Your task to perform on an android device: Open privacy settings Image 0: 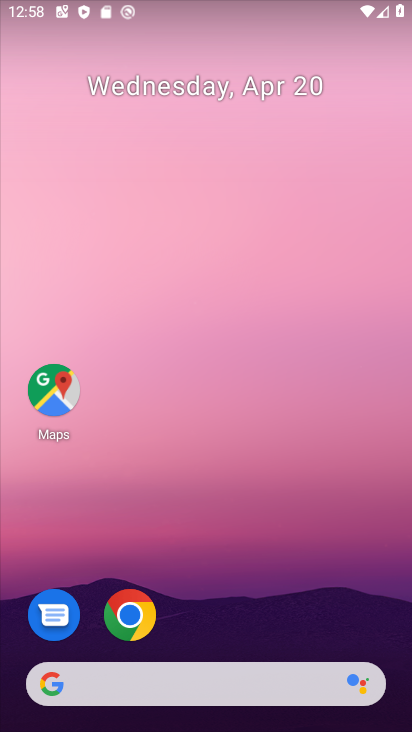
Step 0: click (374, 156)
Your task to perform on an android device: Open privacy settings Image 1: 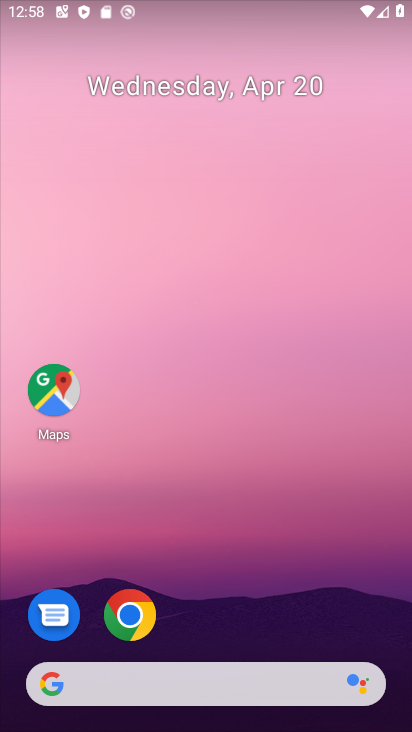
Step 1: drag from (385, 374) to (380, 87)
Your task to perform on an android device: Open privacy settings Image 2: 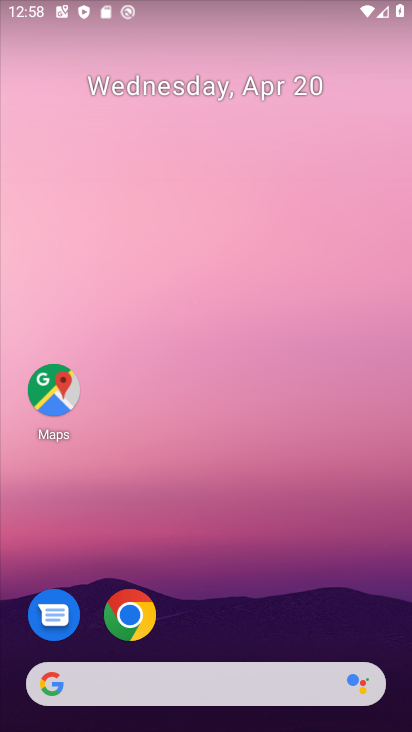
Step 2: drag from (377, 104) to (372, 49)
Your task to perform on an android device: Open privacy settings Image 3: 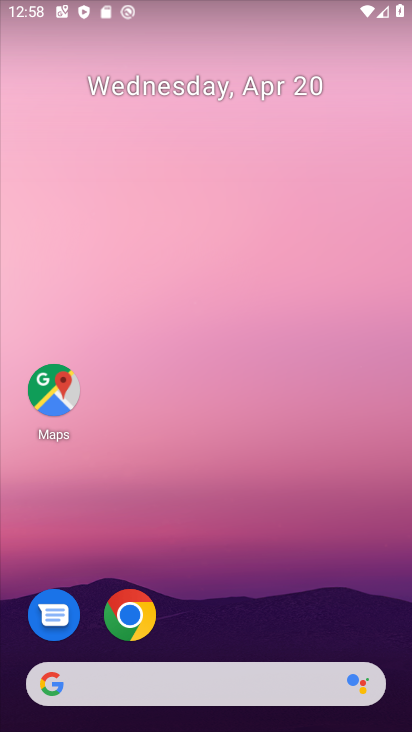
Step 3: drag from (393, 607) to (386, 184)
Your task to perform on an android device: Open privacy settings Image 4: 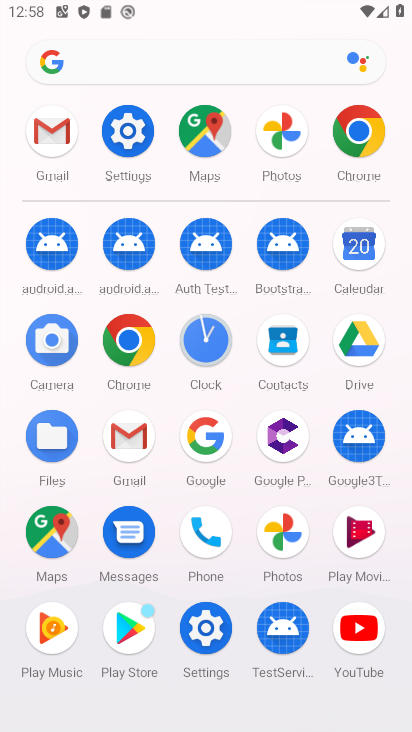
Step 4: click (364, 138)
Your task to perform on an android device: Open privacy settings Image 5: 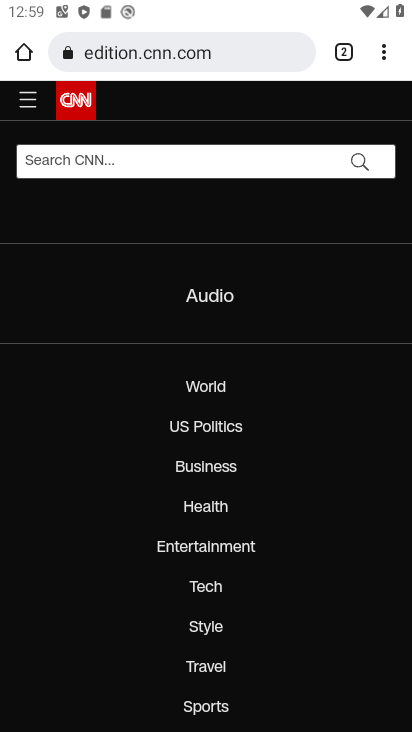
Step 5: click (379, 48)
Your task to perform on an android device: Open privacy settings Image 6: 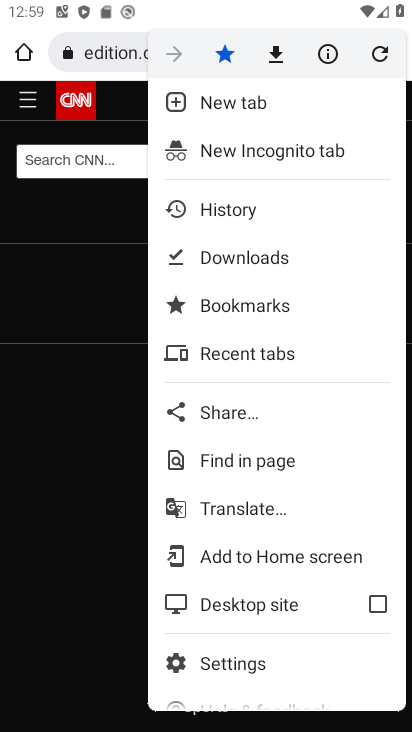
Step 6: click (220, 657)
Your task to perform on an android device: Open privacy settings Image 7: 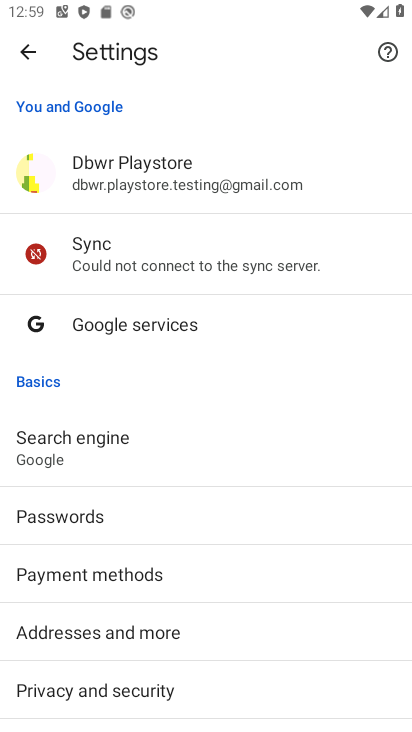
Step 7: drag from (316, 460) to (304, 243)
Your task to perform on an android device: Open privacy settings Image 8: 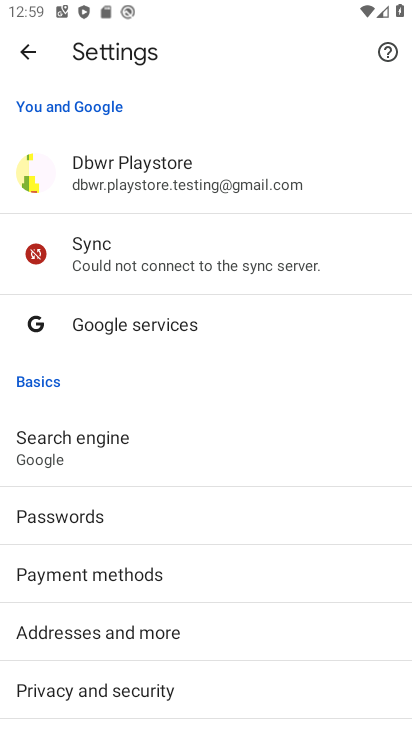
Step 8: drag from (305, 644) to (311, 255)
Your task to perform on an android device: Open privacy settings Image 9: 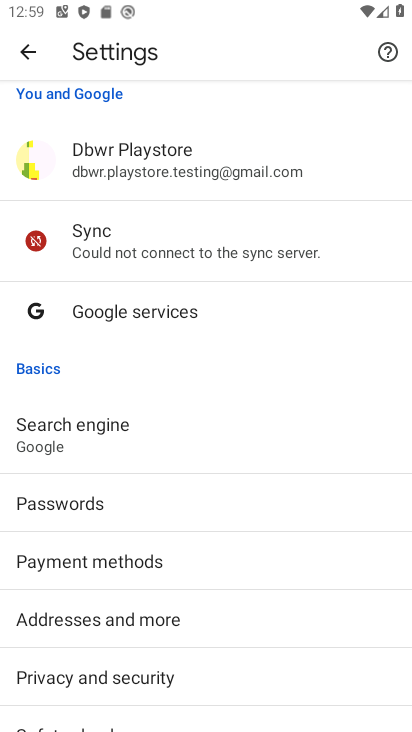
Step 9: drag from (348, 382) to (350, 259)
Your task to perform on an android device: Open privacy settings Image 10: 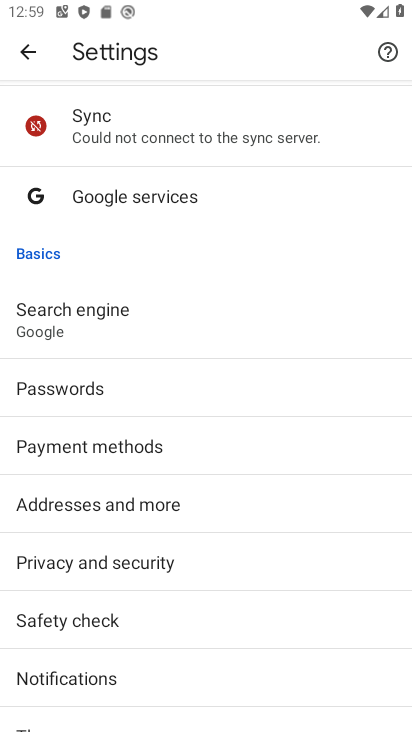
Step 10: drag from (329, 465) to (305, 273)
Your task to perform on an android device: Open privacy settings Image 11: 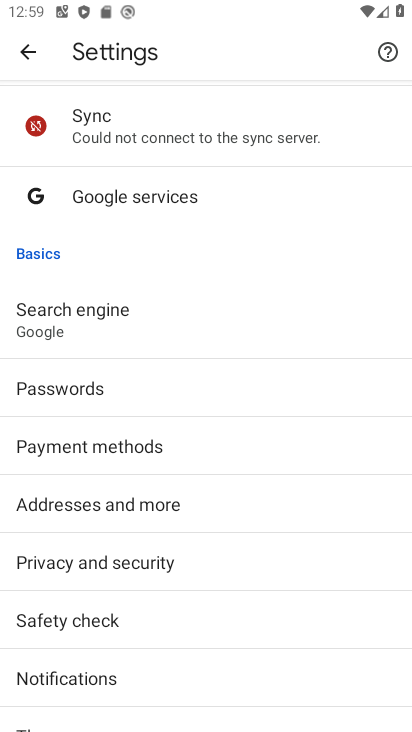
Step 11: drag from (270, 697) to (266, 298)
Your task to perform on an android device: Open privacy settings Image 12: 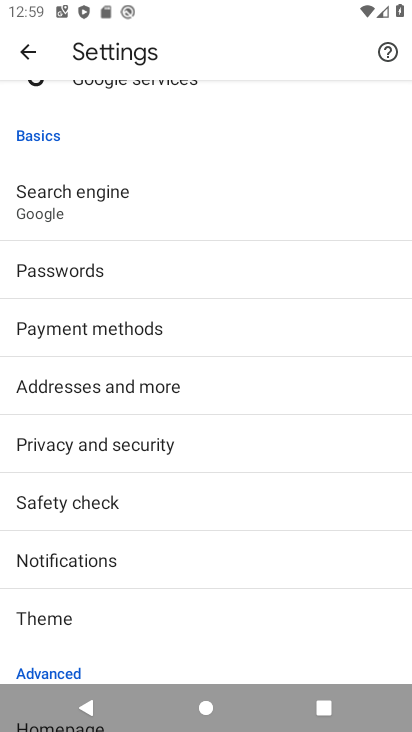
Step 12: drag from (321, 359) to (321, 227)
Your task to perform on an android device: Open privacy settings Image 13: 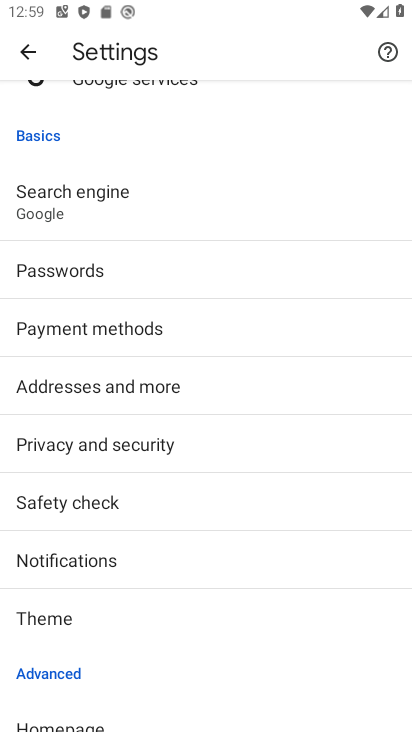
Step 13: drag from (295, 558) to (305, 291)
Your task to perform on an android device: Open privacy settings Image 14: 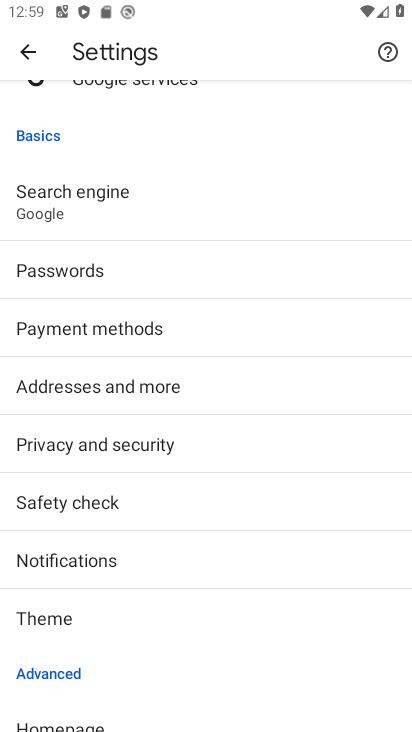
Step 14: click (269, 244)
Your task to perform on an android device: Open privacy settings Image 15: 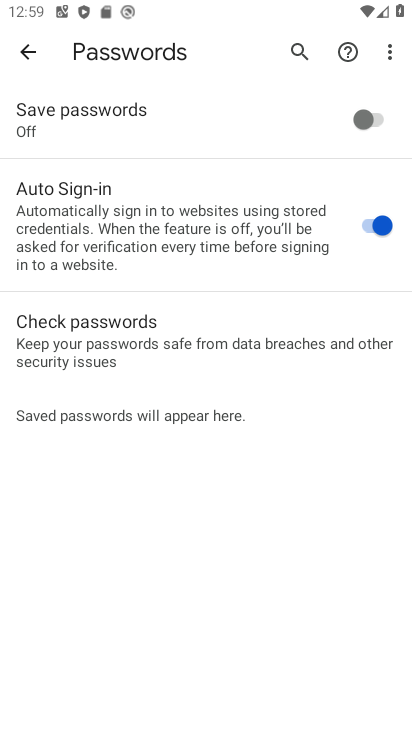
Step 15: click (25, 52)
Your task to perform on an android device: Open privacy settings Image 16: 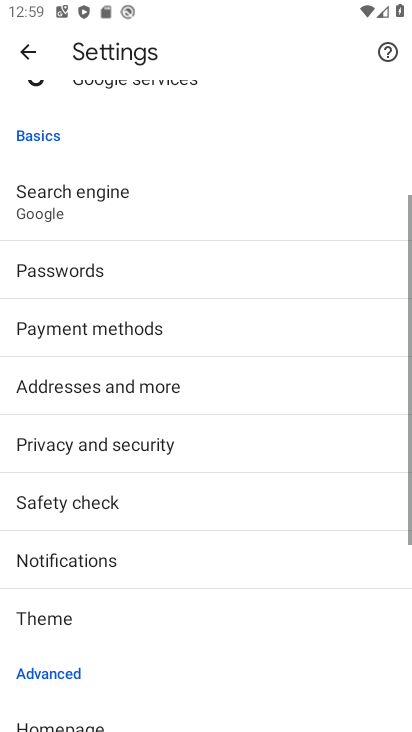
Step 16: drag from (252, 590) to (284, 205)
Your task to perform on an android device: Open privacy settings Image 17: 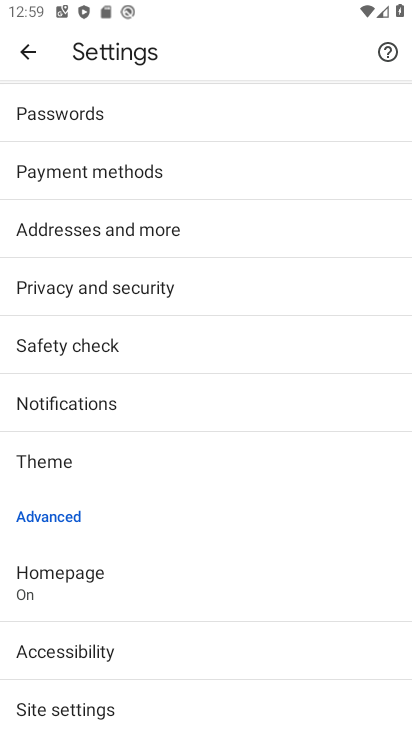
Step 17: click (119, 293)
Your task to perform on an android device: Open privacy settings Image 18: 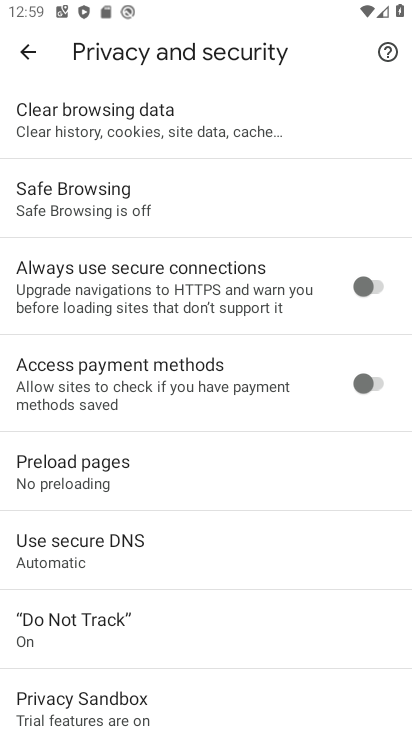
Step 18: task complete